Your task to perform on an android device: What is the recent news? Image 0: 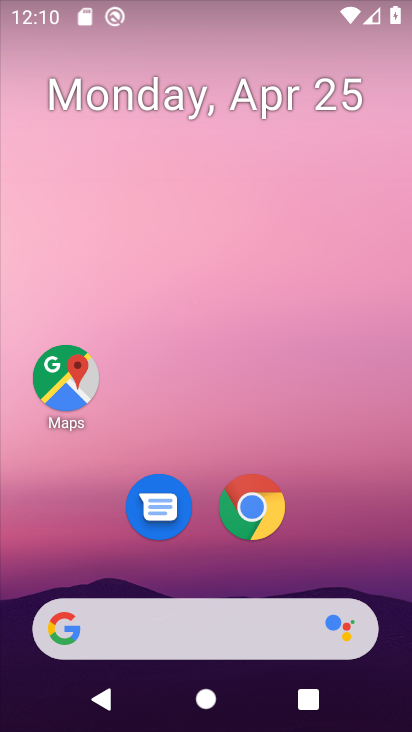
Step 0: drag from (12, 309) to (408, 282)
Your task to perform on an android device: What is the recent news? Image 1: 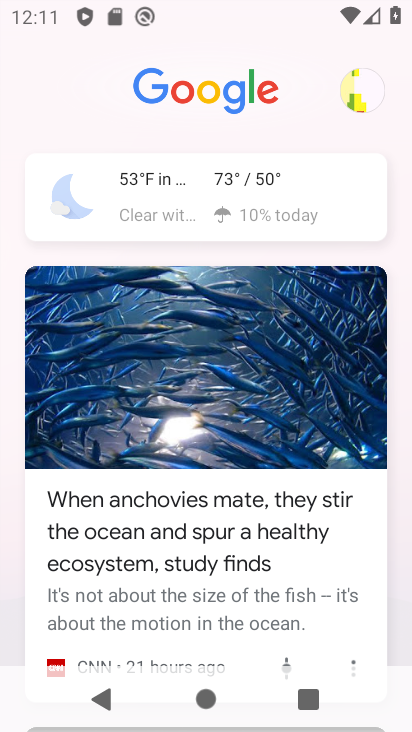
Step 1: task complete